Your task to perform on an android device: Open eBay Image 0: 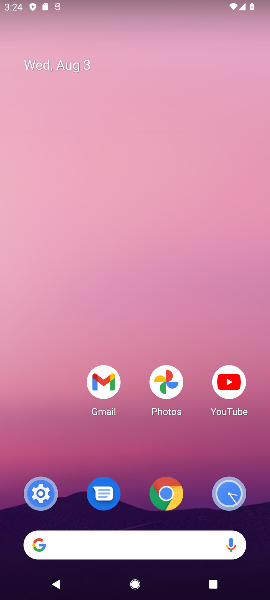
Step 0: drag from (135, 490) to (101, 61)
Your task to perform on an android device: Open eBay Image 1: 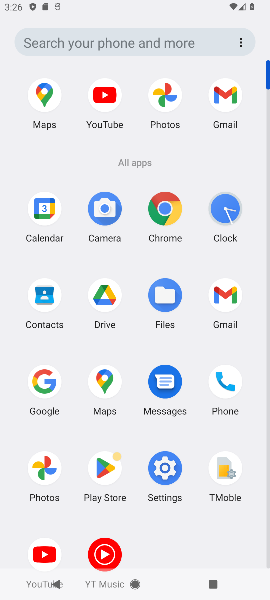
Step 1: click (159, 223)
Your task to perform on an android device: Open eBay Image 2: 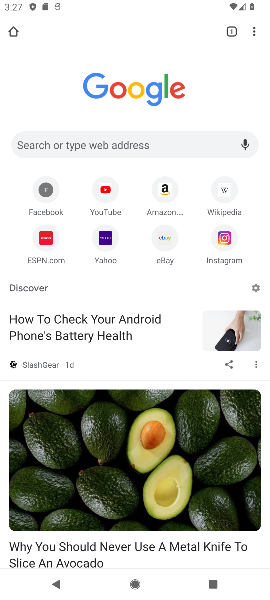
Step 2: click (156, 247)
Your task to perform on an android device: Open eBay Image 3: 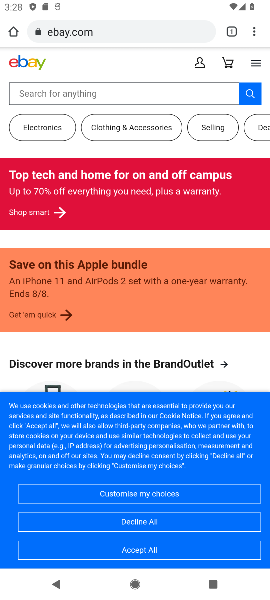
Step 3: task complete